Your task to perform on an android device: check android version Image 0: 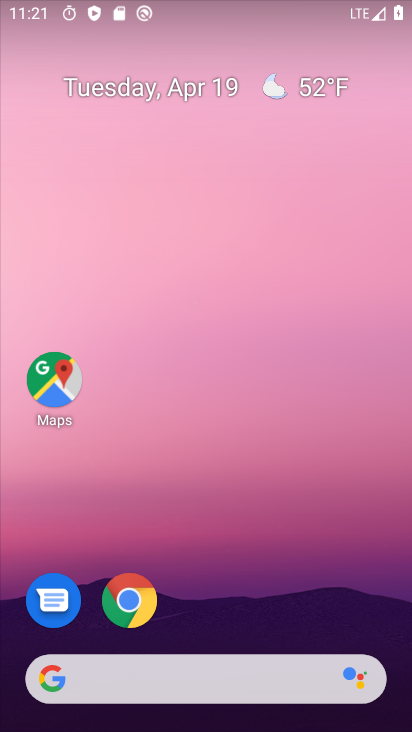
Step 0: drag from (186, 335) to (288, 62)
Your task to perform on an android device: check android version Image 1: 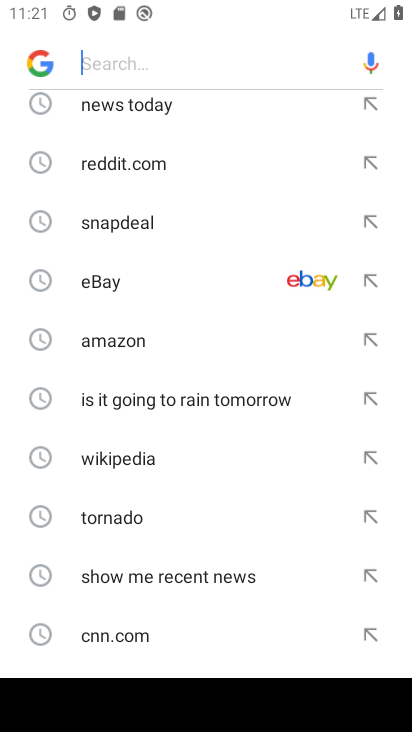
Step 1: press home button
Your task to perform on an android device: check android version Image 2: 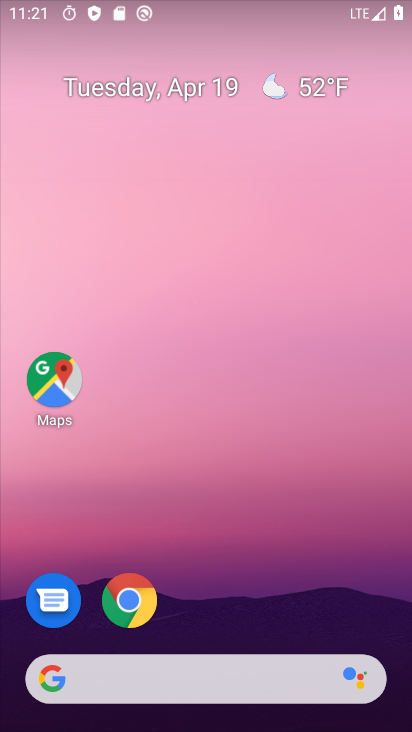
Step 2: drag from (210, 659) to (222, 7)
Your task to perform on an android device: check android version Image 3: 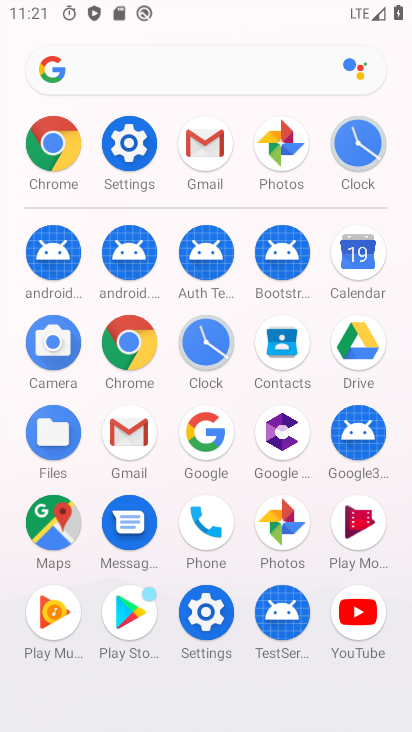
Step 3: click (133, 140)
Your task to perform on an android device: check android version Image 4: 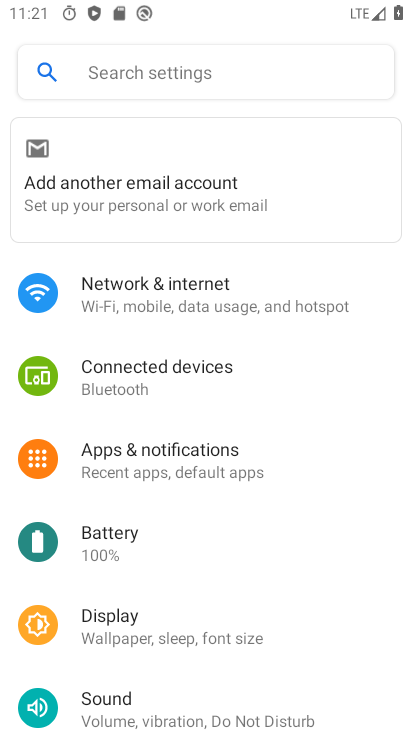
Step 4: drag from (211, 589) to (190, 22)
Your task to perform on an android device: check android version Image 5: 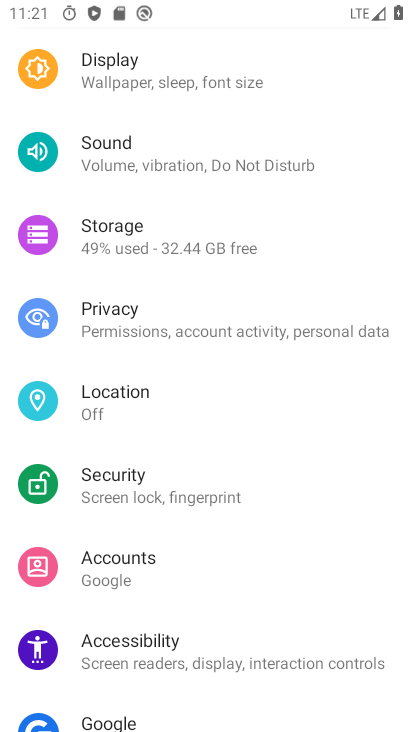
Step 5: drag from (212, 647) to (168, 143)
Your task to perform on an android device: check android version Image 6: 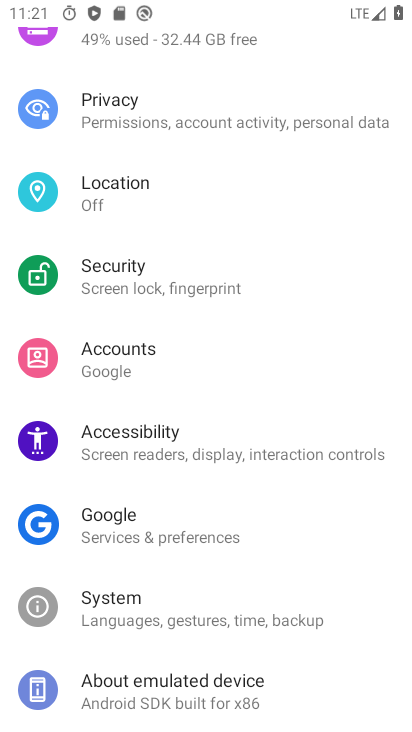
Step 6: click (138, 675)
Your task to perform on an android device: check android version Image 7: 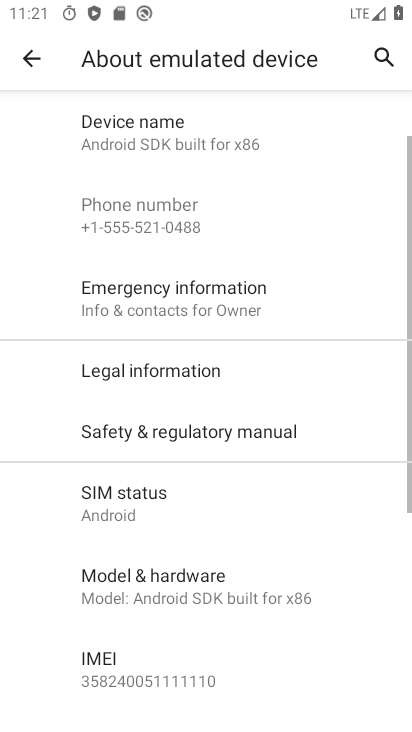
Step 7: drag from (165, 582) to (111, 137)
Your task to perform on an android device: check android version Image 8: 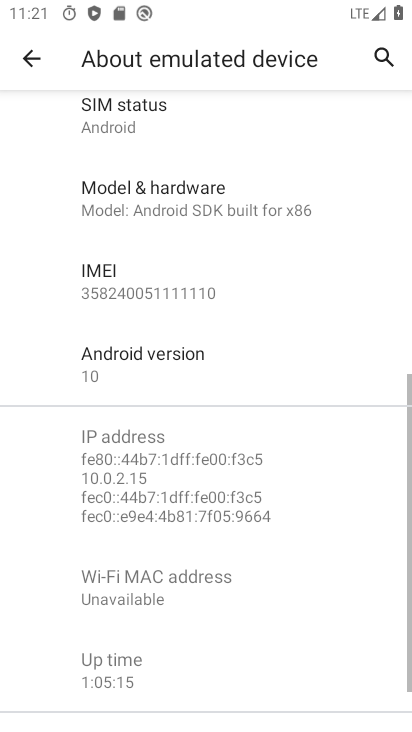
Step 8: click (131, 352)
Your task to perform on an android device: check android version Image 9: 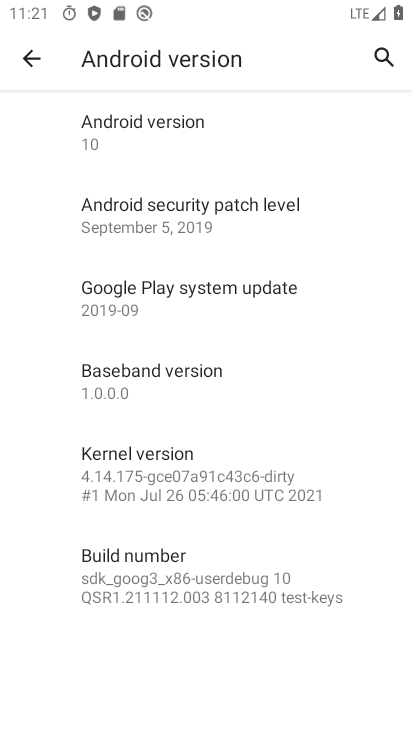
Step 9: task complete